Your task to perform on an android device: Search for vegetarian restaurants on Maps Image 0: 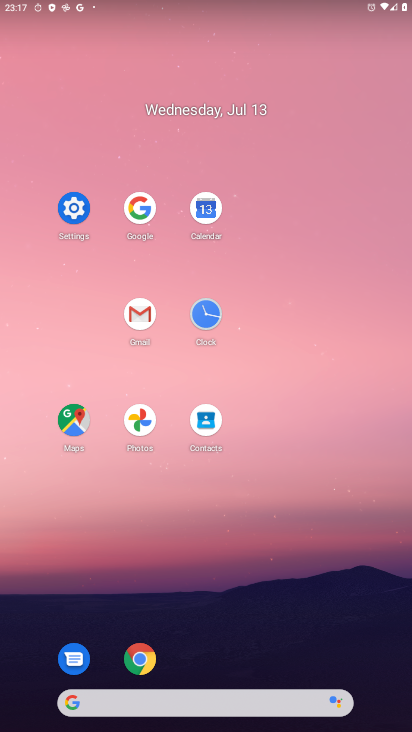
Step 0: click (83, 414)
Your task to perform on an android device: Search for vegetarian restaurants on Maps Image 1: 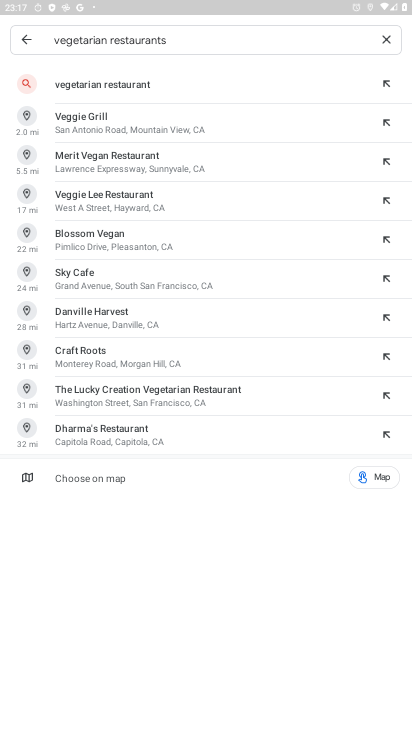
Step 1: task complete